Your task to perform on an android device: turn off smart reply in the gmail app Image 0: 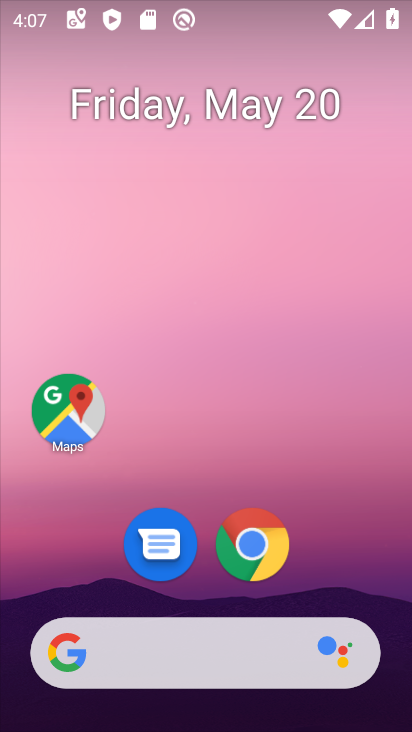
Step 0: drag from (356, 603) to (339, 6)
Your task to perform on an android device: turn off smart reply in the gmail app Image 1: 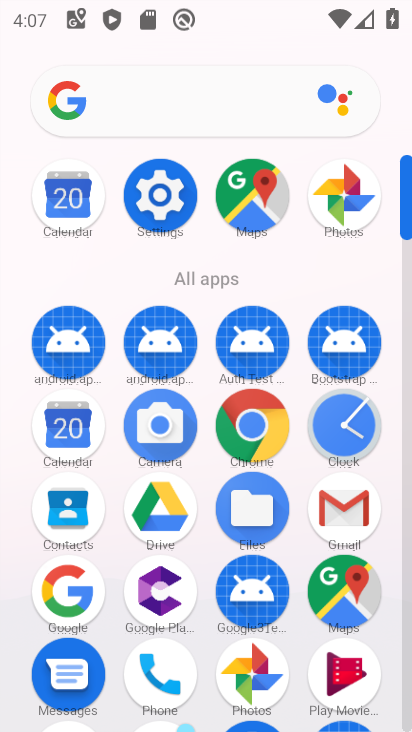
Step 1: click (347, 516)
Your task to perform on an android device: turn off smart reply in the gmail app Image 2: 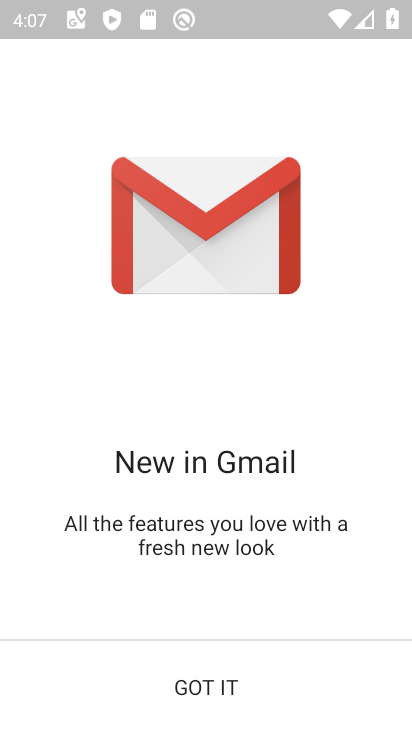
Step 2: click (210, 689)
Your task to perform on an android device: turn off smart reply in the gmail app Image 3: 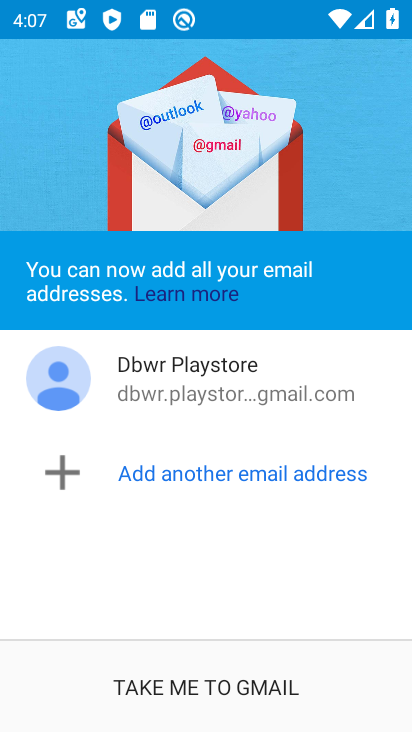
Step 3: click (210, 689)
Your task to perform on an android device: turn off smart reply in the gmail app Image 4: 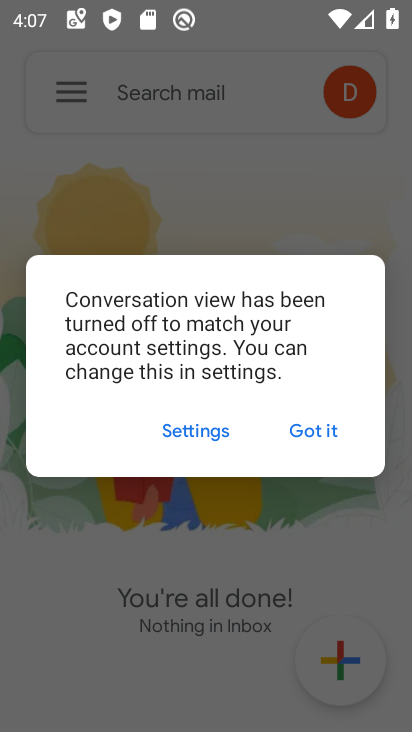
Step 4: click (312, 433)
Your task to perform on an android device: turn off smart reply in the gmail app Image 5: 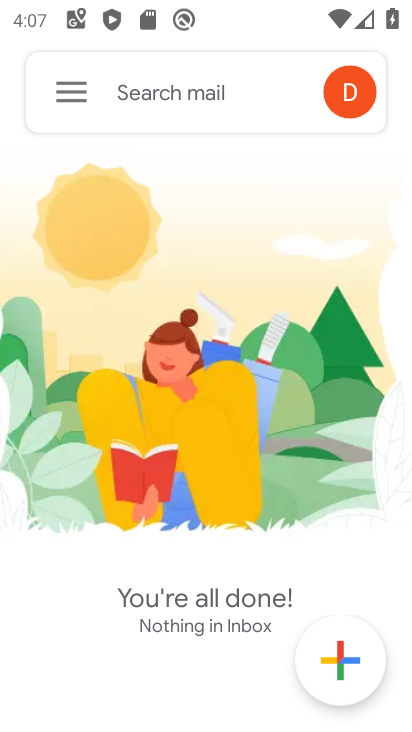
Step 5: click (69, 99)
Your task to perform on an android device: turn off smart reply in the gmail app Image 6: 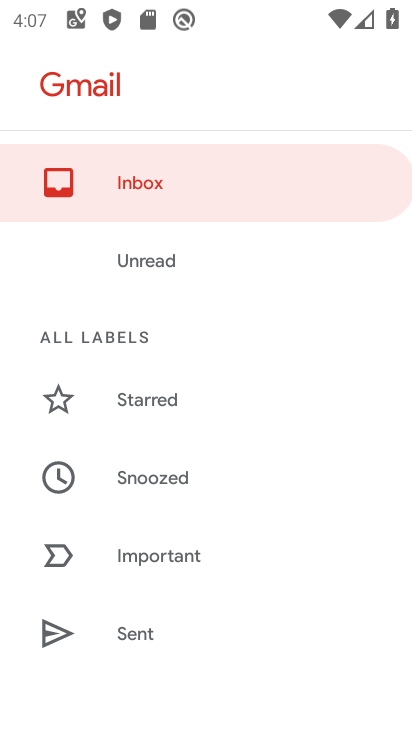
Step 6: drag from (198, 561) to (189, 113)
Your task to perform on an android device: turn off smart reply in the gmail app Image 7: 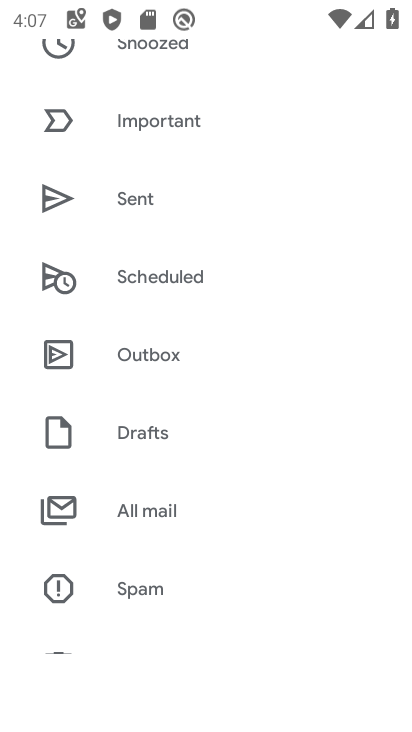
Step 7: drag from (154, 544) to (152, 142)
Your task to perform on an android device: turn off smart reply in the gmail app Image 8: 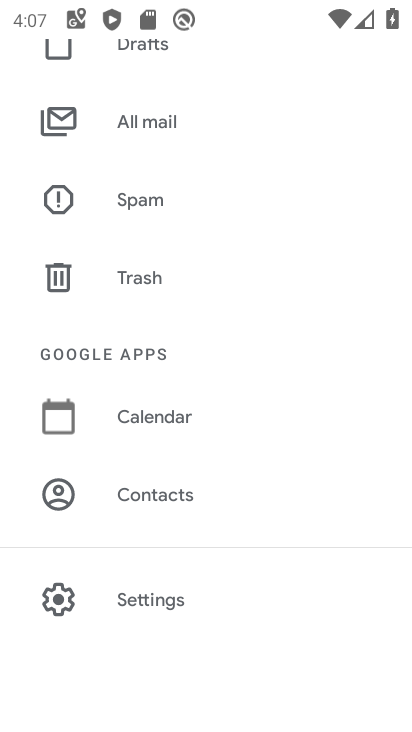
Step 8: click (133, 603)
Your task to perform on an android device: turn off smart reply in the gmail app Image 9: 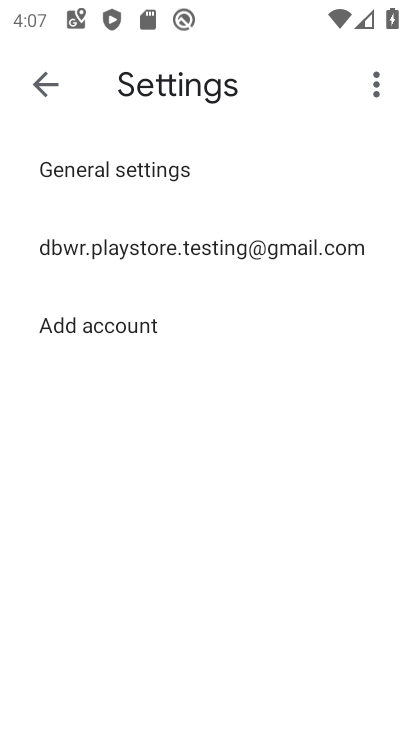
Step 9: click (131, 249)
Your task to perform on an android device: turn off smart reply in the gmail app Image 10: 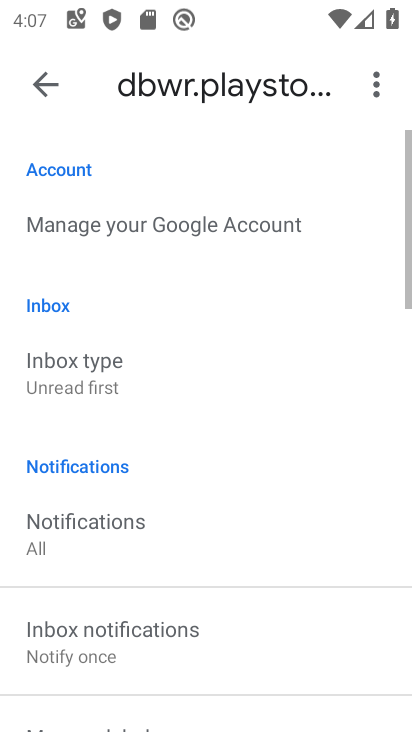
Step 10: drag from (159, 555) to (137, 144)
Your task to perform on an android device: turn off smart reply in the gmail app Image 11: 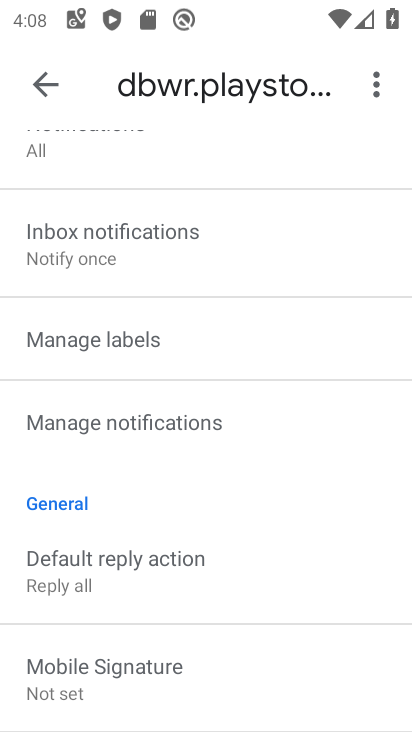
Step 11: drag from (124, 493) to (120, 134)
Your task to perform on an android device: turn off smart reply in the gmail app Image 12: 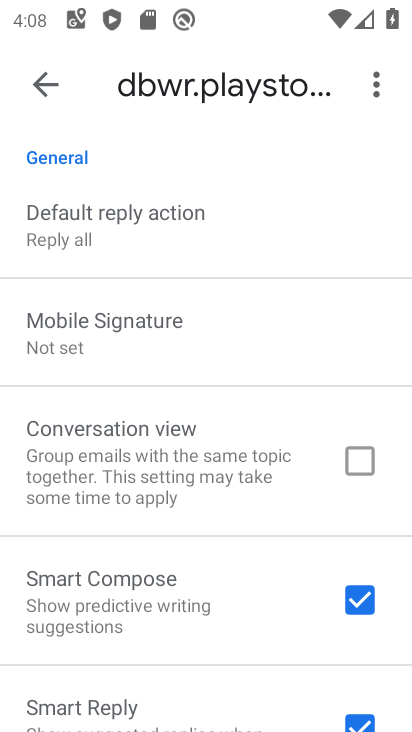
Step 12: drag from (128, 487) to (131, 185)
Your task to perform on an android device: turn off smart reply in the gmail app Image 13: 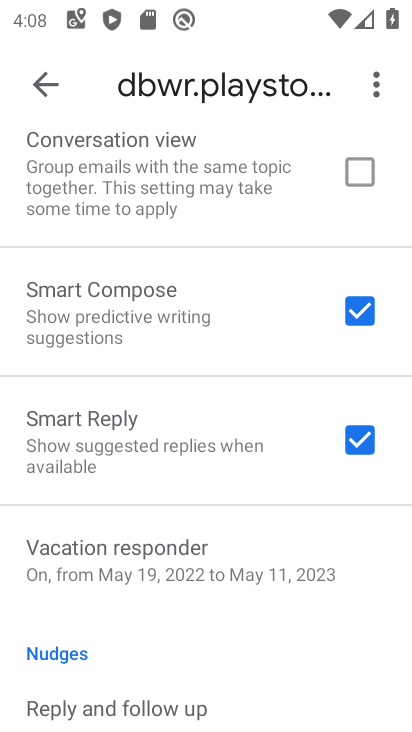
Step 13: click (351, 443)
Your task to perform on an android device: turn off smart reply in the gmail app Image 14: 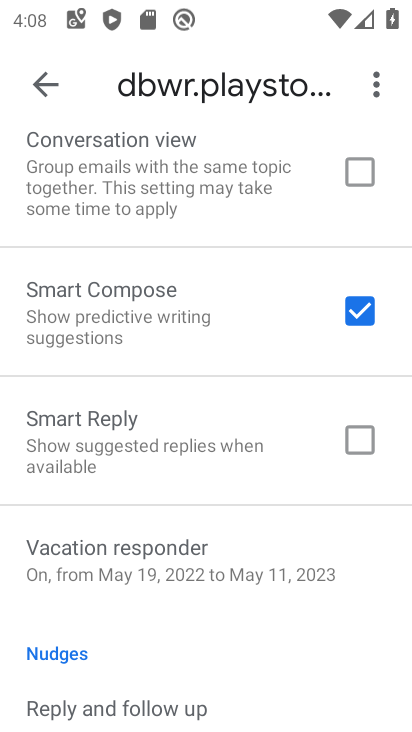
Step 14: task complete